Your task to perform on an android device: check the backup settings in the google photos Image 0: 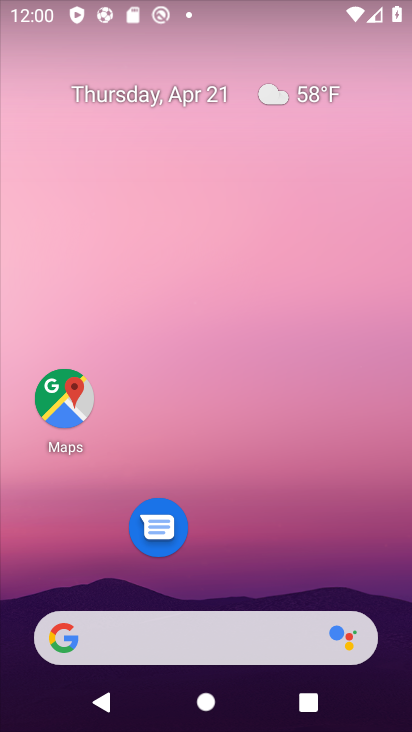
Step 0: drag from (217, 721) to (219, 95)
Your task to perform on an android device: check the backup settings in the google photos Image 1: 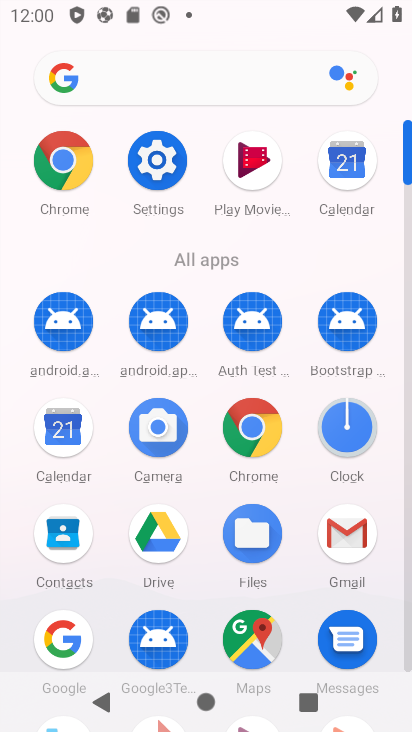
Step 1: drag from (209, 634) to (201, 176)
Your task to perform on an android device: check the backup settings in the google photos Image 2: 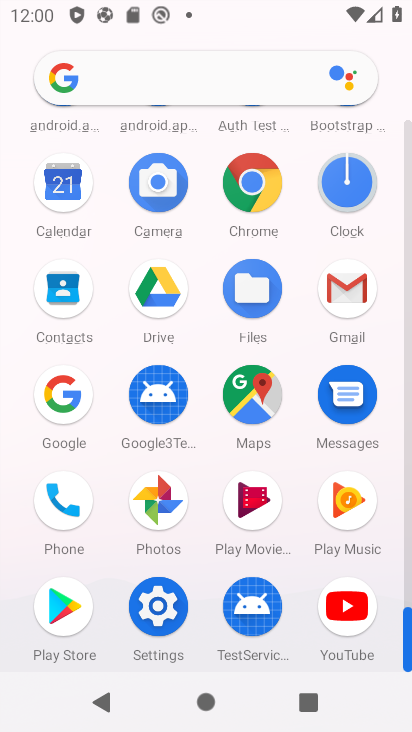
Step 2: click (156, 497)
Your task to perform on an android device: check the backup settings in the google photos Image 3: 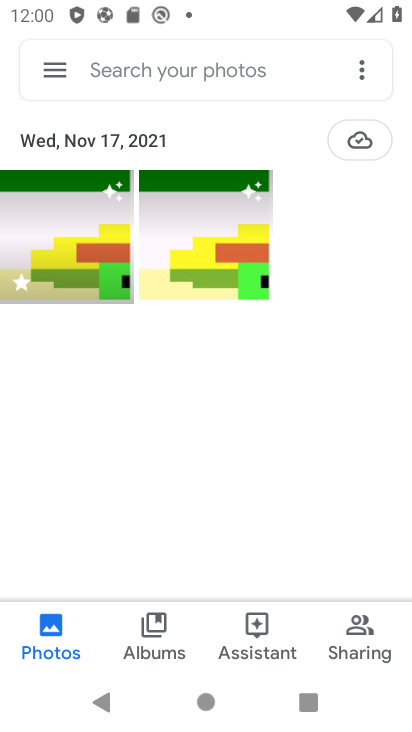
Step 3: click (49, 71)
Your task to perform on an android device: check the backup settings in the google photos Image 4: 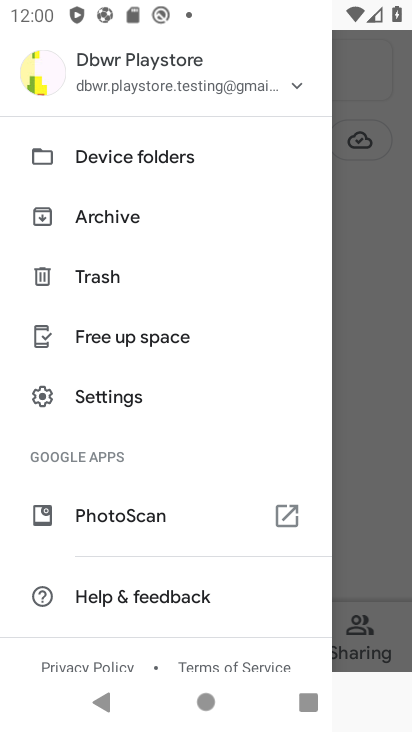
Step 4: click (99, 398)
Your task to perform on an android device: check the backup settings in the google photos Image 5: 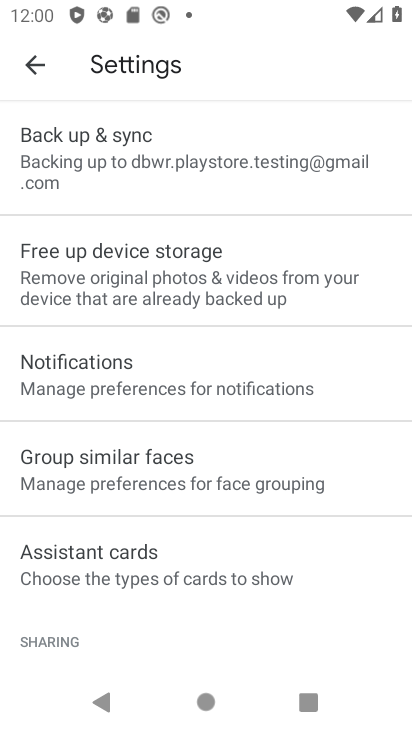
Step 5: click (132, 155)
Your task to perform on an android device: check the backup settings in the google photos Image 6: 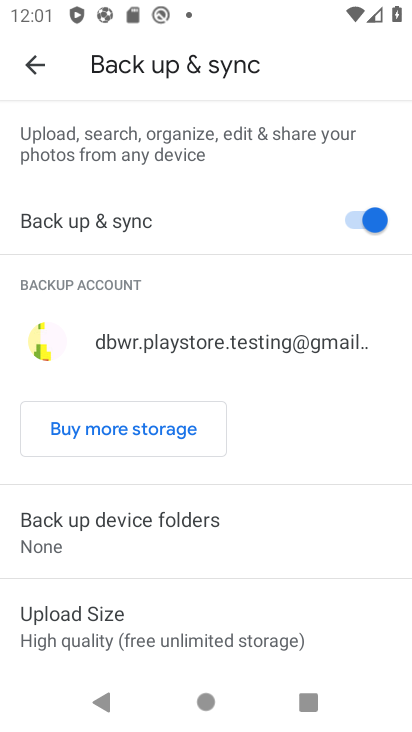
Step 6: task complete